Your task to perform on an android device: Open Youtube and go to the subscriptions tab Image 0: 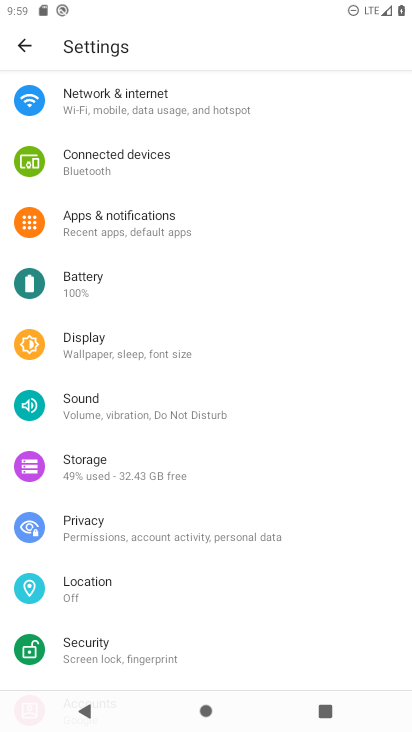
Step 0: press home button
Your task to perform on an android device: Open Youtube and go to the subscriptions tab Image 1: 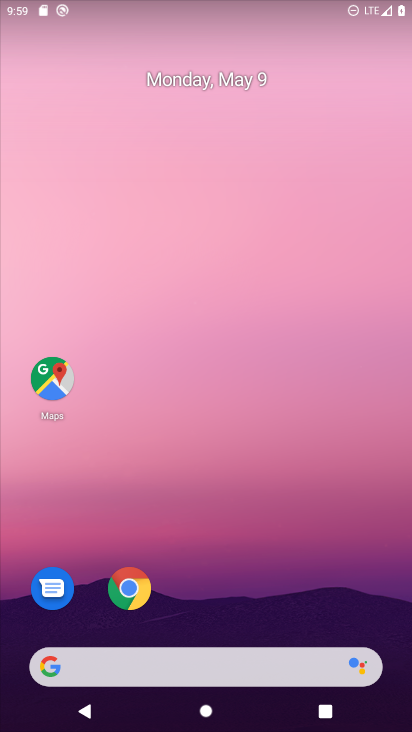
Step 1: drag from (251, 612) to (192, 34)
Your task to perform on an android device: Open Youtube and go to the subscriptions tab Image 2: 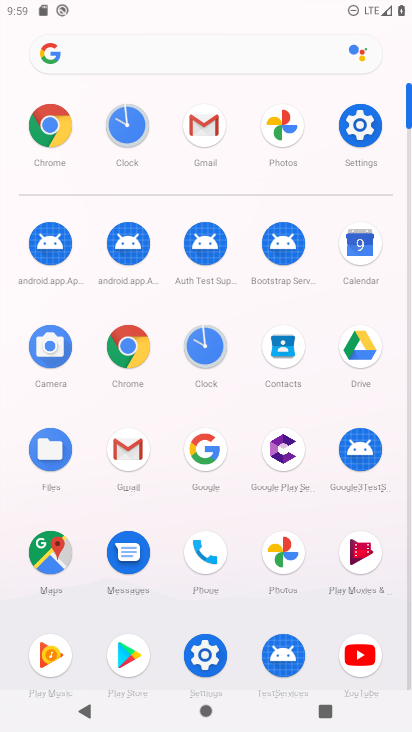
Step 2: click (372, 660)
Your task to perform on an android device: Open Youtube and go to the subscriptions tab Image 3: 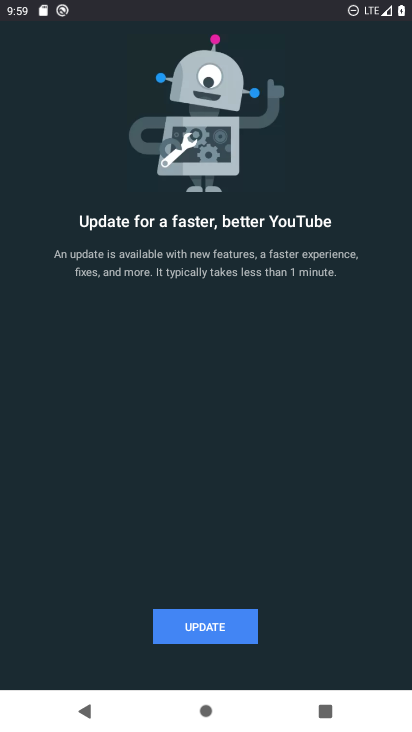
Step 3: click (230, 628)
Your task to perform on an android device: Open Youtube and go to the subscriptions tab Image 4: 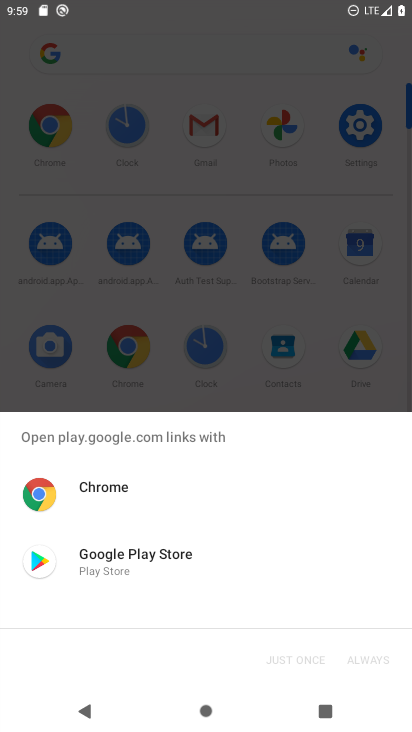
Step 4: click (144, 553)
Your task to perform on an android device: Open Youtube and go to the subscriptions tab Image 5: 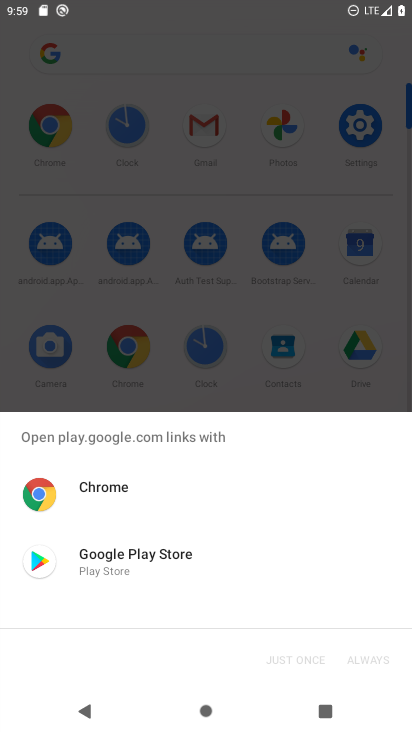
Step 5: click (206, 549)
Your task to perform on an android device: Open Youtube and go to the subscriptions tab Image 6: 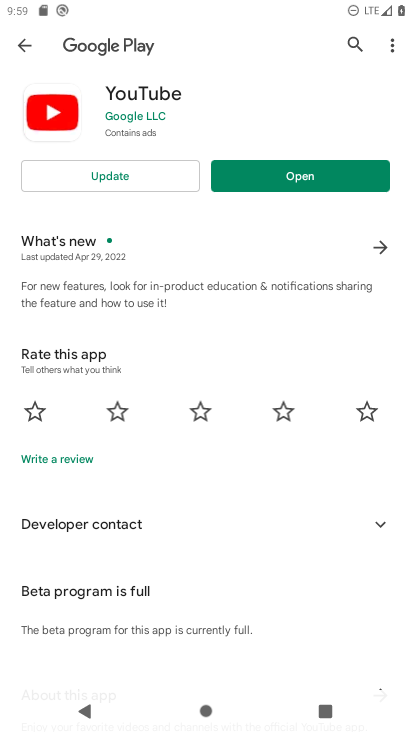
Step 6: click (154, 186)
Your task to perform on an android device: Open Youtube and go to the subscriptions tab Image 7: 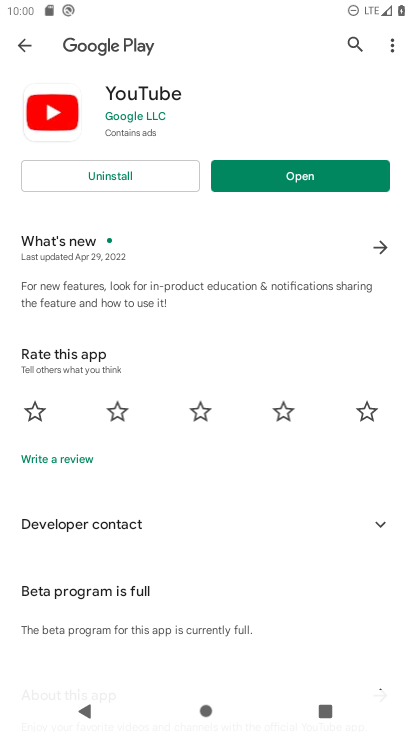
Step 7: click (345, 175)
Your task to perform on an android device: Open Youtube and go to the subscriptions tab Image 8: 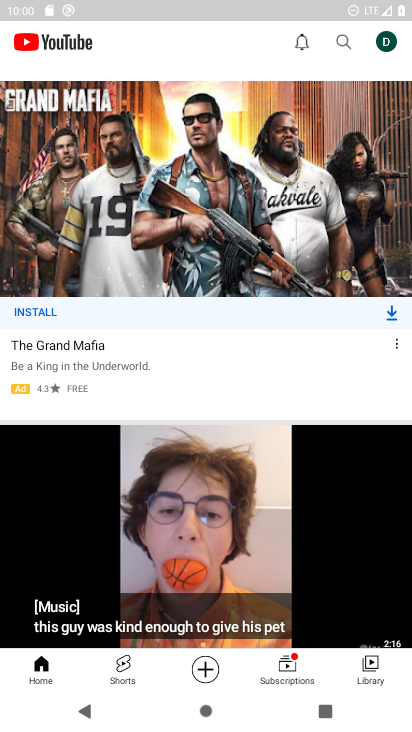
Step 8: click (283, 657)
Your task to perform on an android device: Open Youtube and go to the subscriptions tab Image 9: 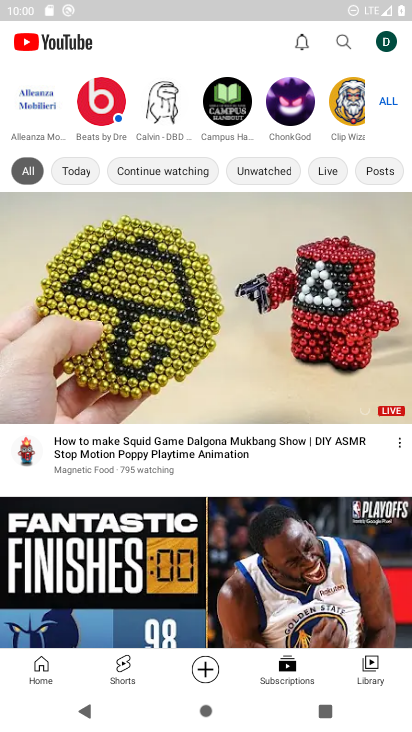
Step 9: task complete